Your task to perform on an android device: turn off javascript in the chrome app Image 0: 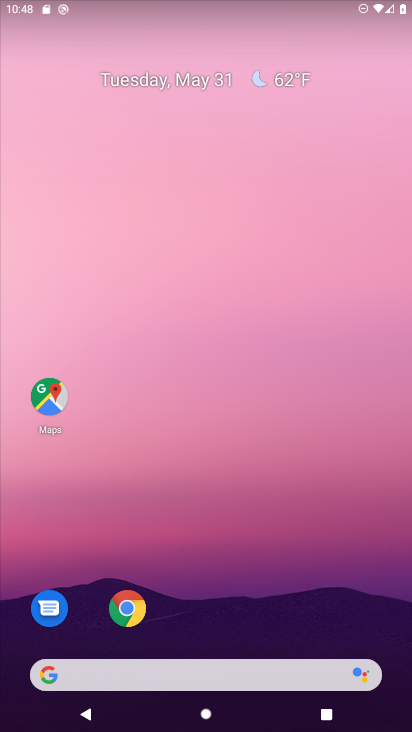
Step 0: drag from (294, 584) to (307, 256)
Your task to perform on an android device: turn off javascript in the chrome app Image 1: 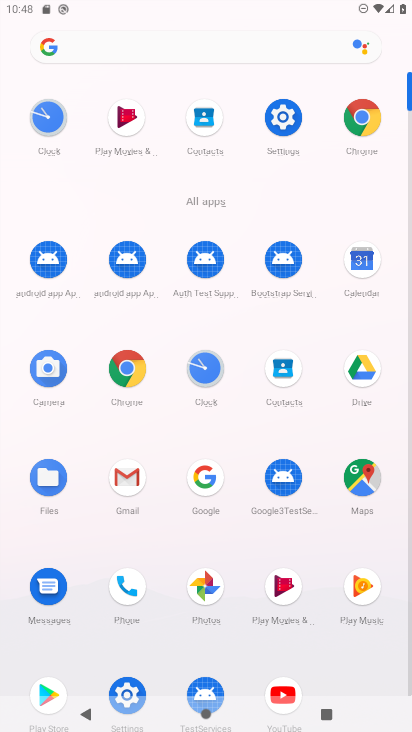
Step 1: click (119, 366)
Your task to perform on an android device: turn off javascript in the chrome app Image 2: 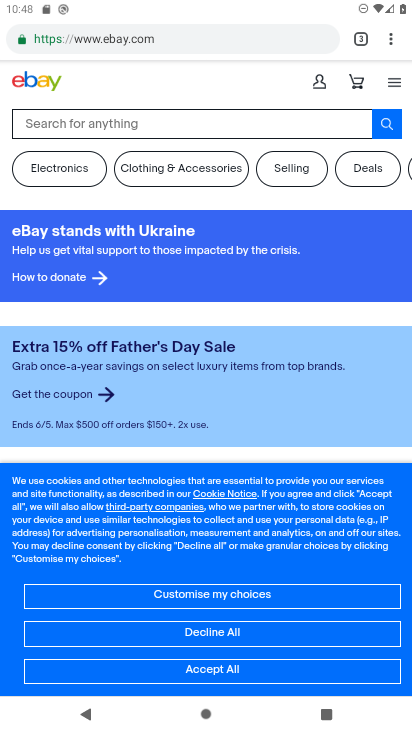
Step 2: drag from (390, 29) to (277, 507)
Your task to perform on an android device: turn off javascript in the chrome app Image 3: 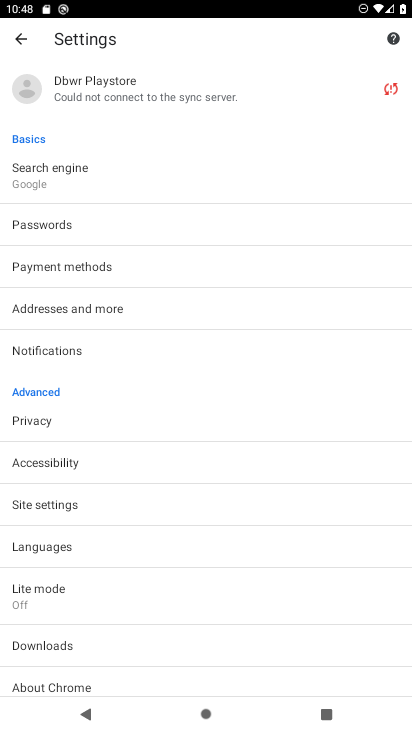
Step 3: drag from (251, 587) to (255, 346)
Your task to perform on an android device: turn off javascript in the chrome app Image 4: 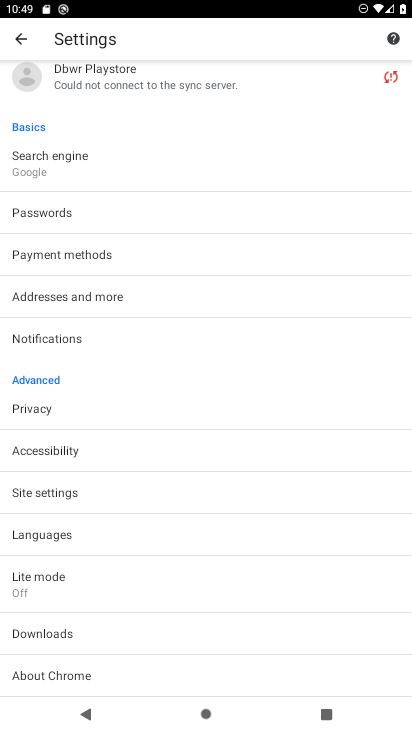
Step 4: click (96, 488)
Your task to perform on an android device: turn off javascript in the chrome app Image 5: 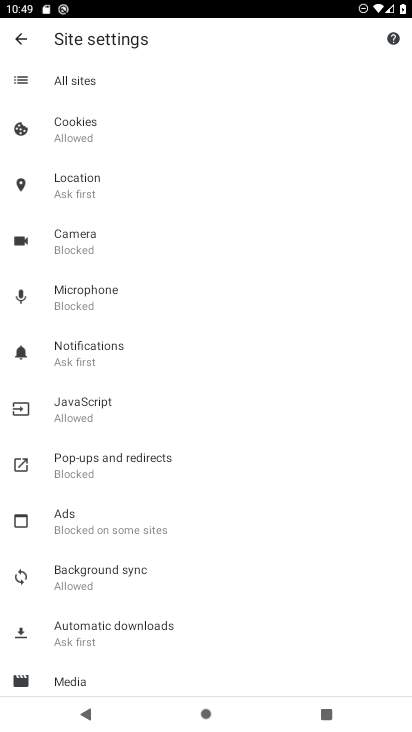
Step 5: click (96, 417)
Your task to perform on an android device: turn off javascript in the chrome app Image 6: 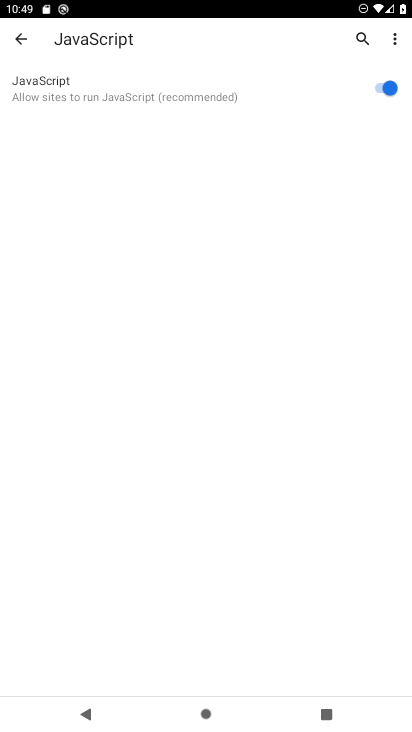
Step 6: click (381, 82)
Your task to perform on an android device: turn off javascript in the chrome app Image 7: 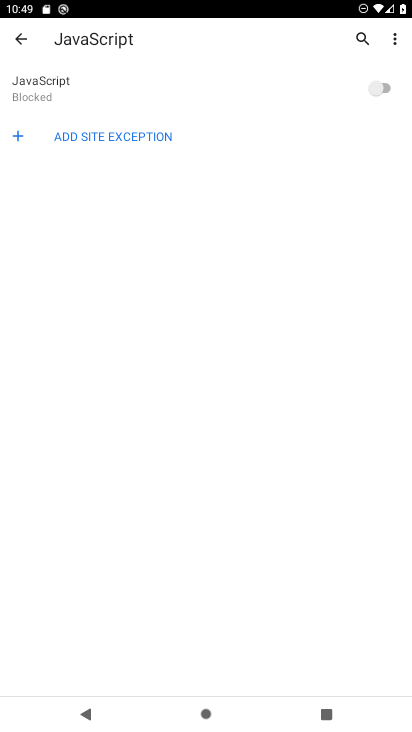
Step 7: task complete